Your task to perform on an android device: Open accessibility settings Image 0: 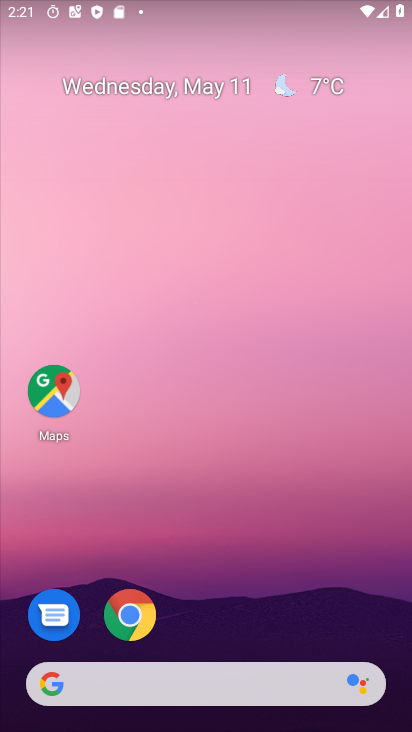
Step 0: drag from (235, 672) to (239, 33)
Your task to perform on an android device: Open accessibility settings Image 1: 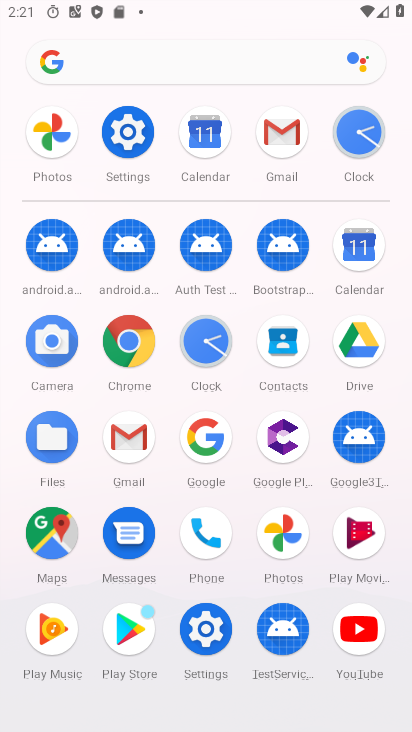
Step 1: click (115, 128)
Your task to perform on an android device: Open accessibility settings Image 2: 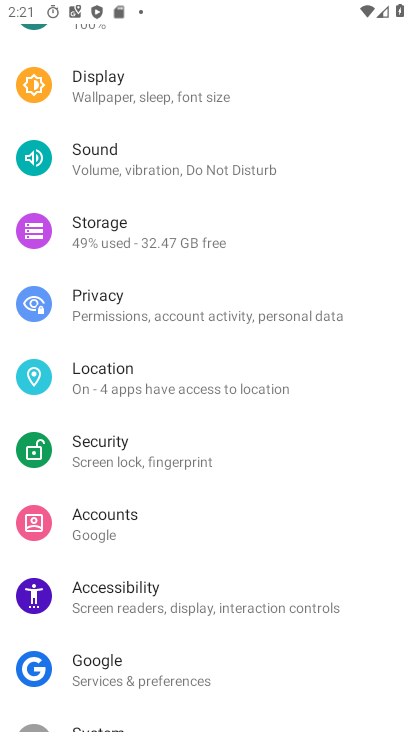
Step 2: click (131, 587)
Your task to perform on an android device: Open accessibility settings Image 3: 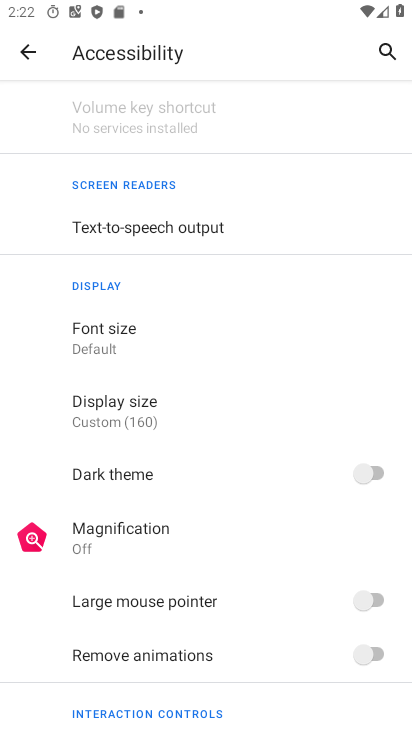
Step 3: task complete